Your task to perform on an android device: Add macbook pro to the cart on ebay.com Image 0: 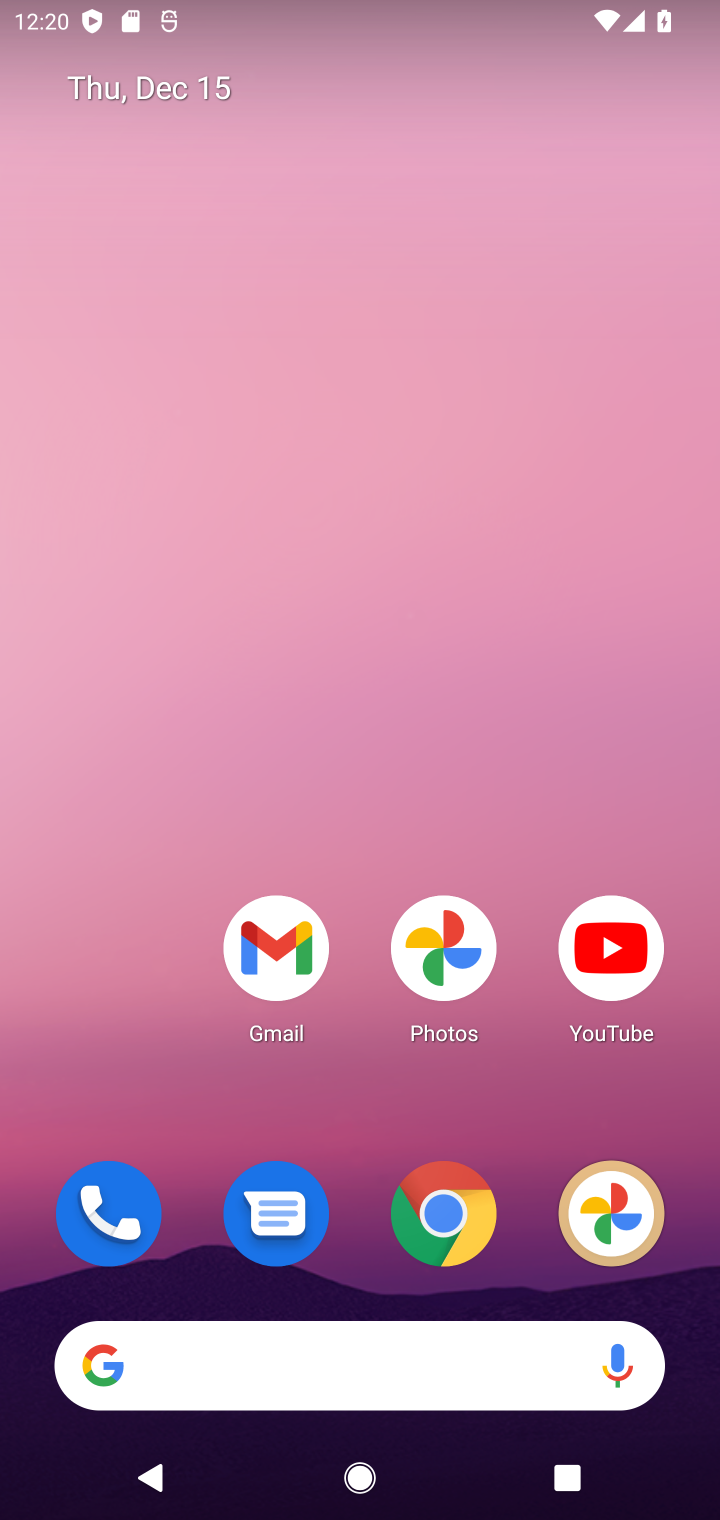
Step 0: click (474, 1186)
Your task to perform on an android device: Add macbook pro to the cart on ebay.com Image 1: 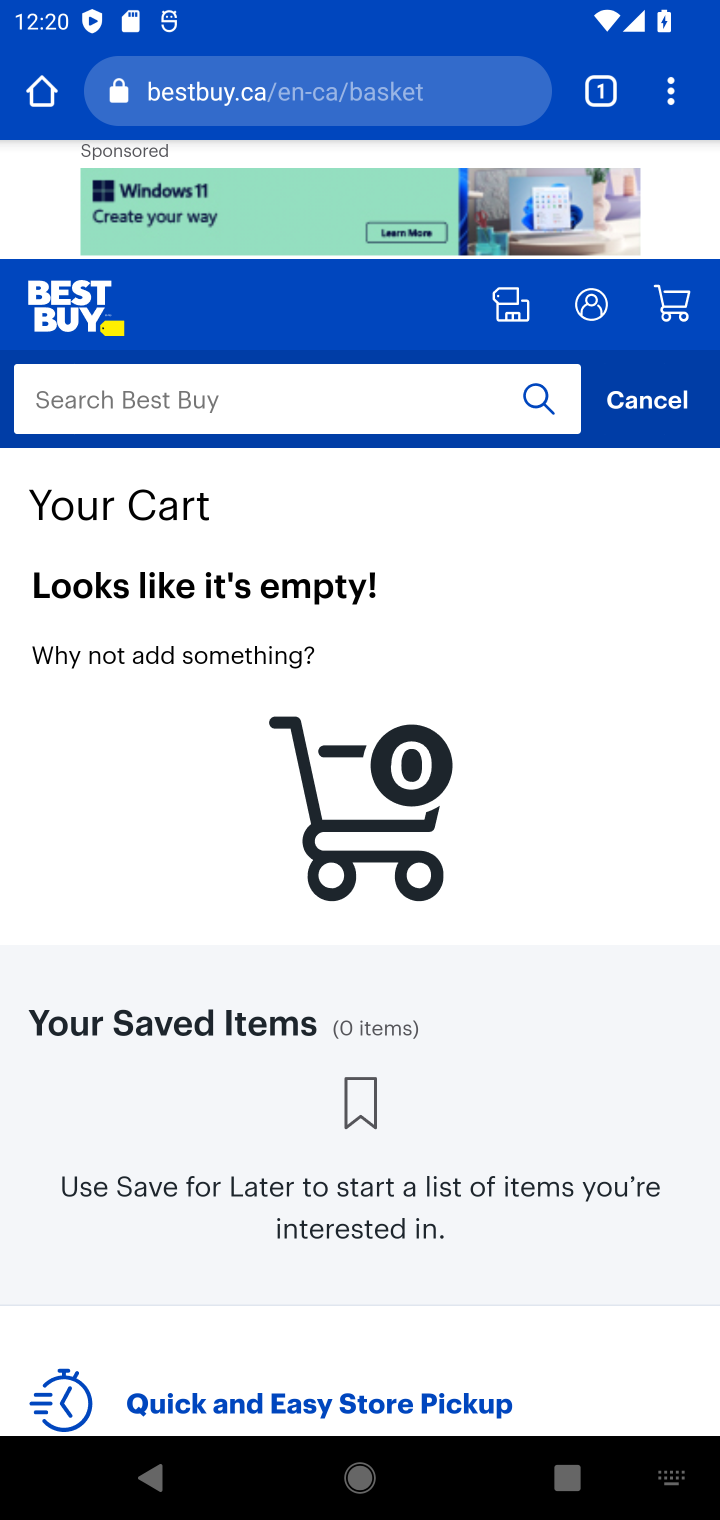
Step 1: click (216, 90)
Your task to perform on an android device: Add macbook pro to the cart on ebay.com Image 2: 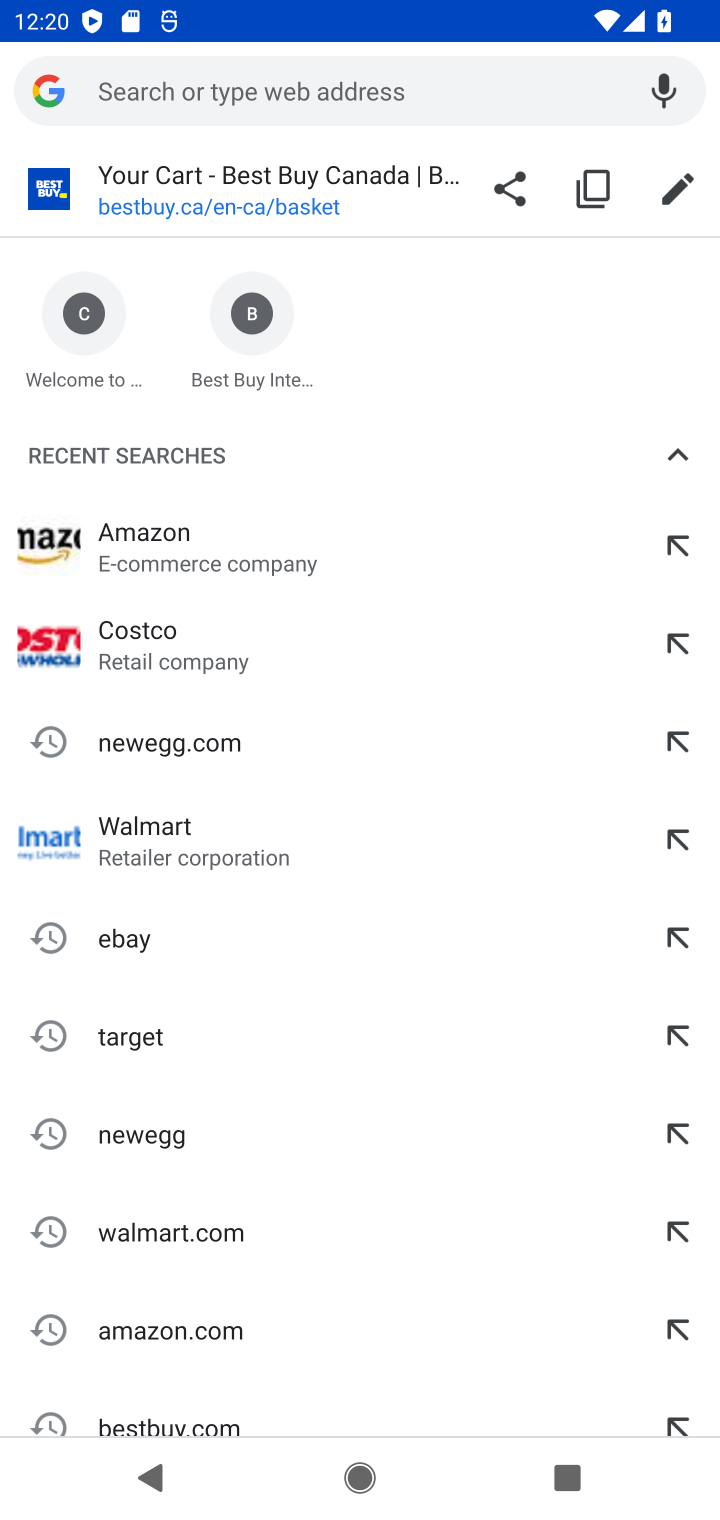
Step 2: type "ebay"
Your task to perform on an android device: Add macbook pro to the cart on ebay.com Image 3: 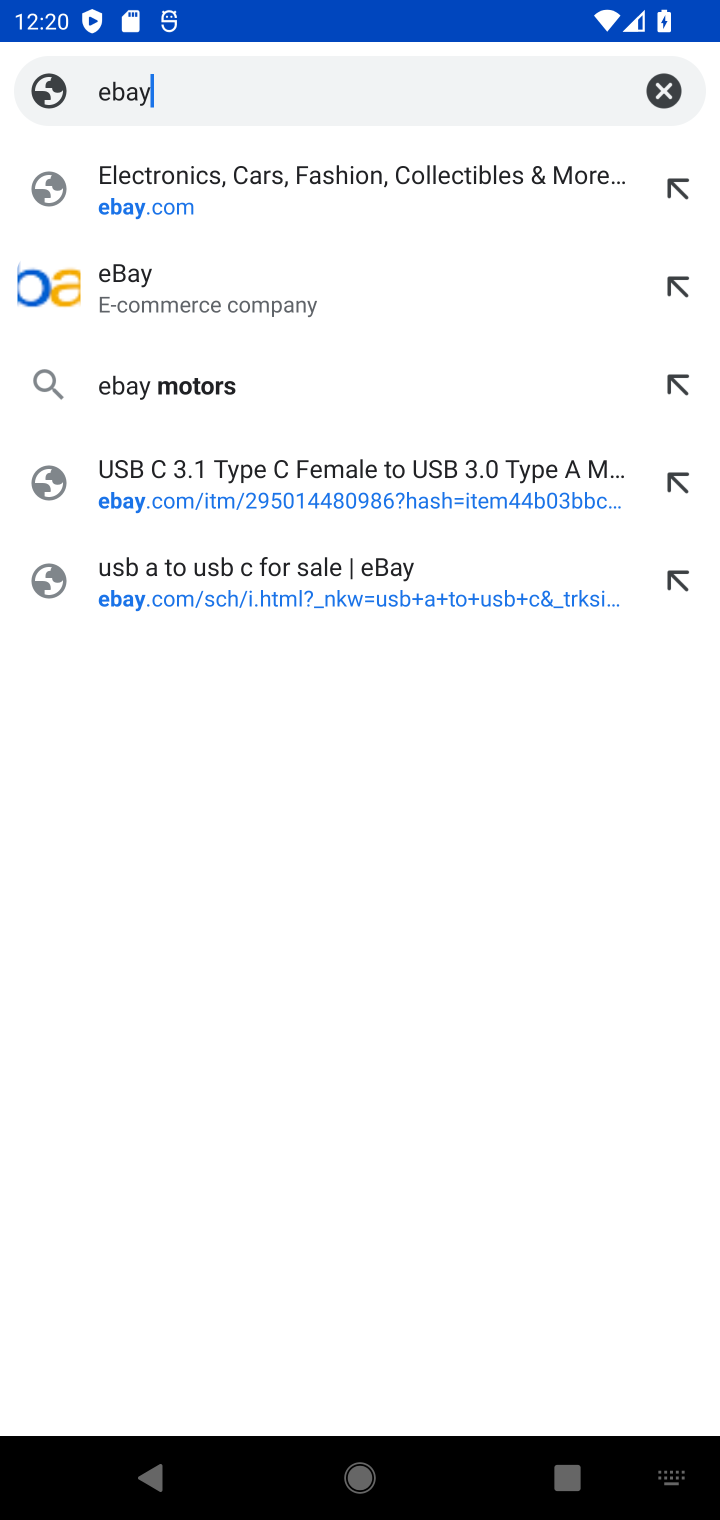
Step 3: click (259, 164)
Your task to perform on an android device: Add macbook pro to the cart on ebay.com Image 4: 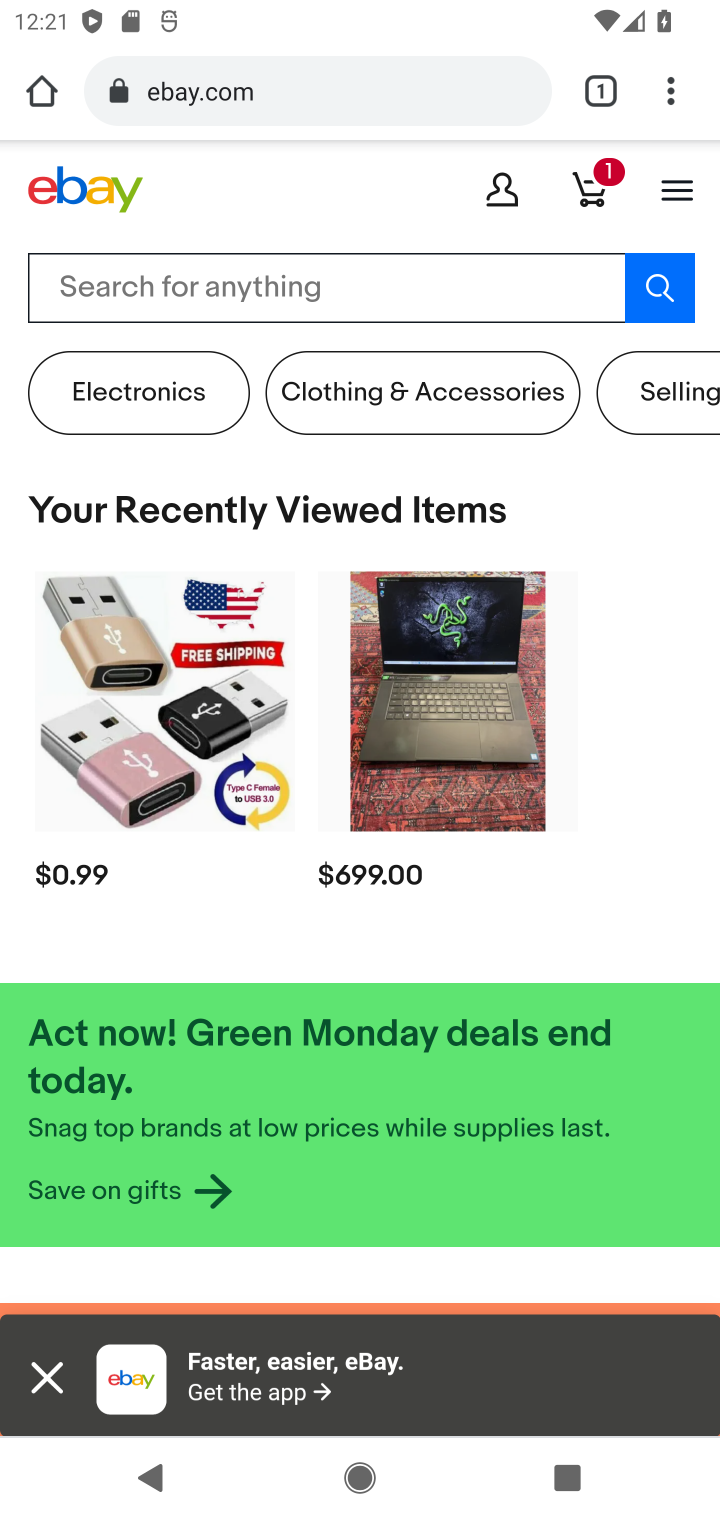
Step 4: task complete